Your task to perform on an android device: turn off location Image 0: 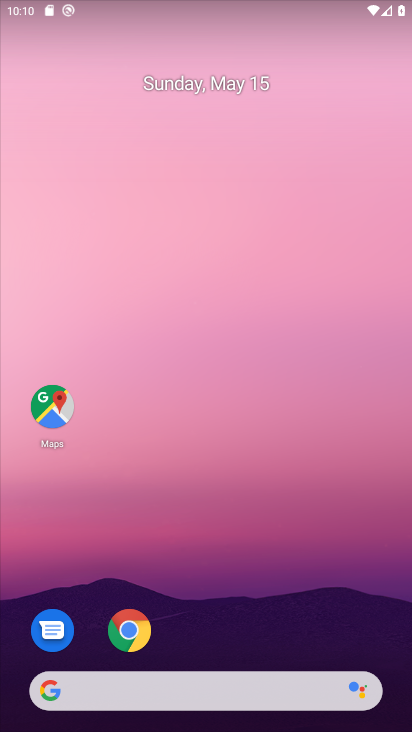
Step 0: press home button
Your task to perform on an android device: turn off location Image 1: 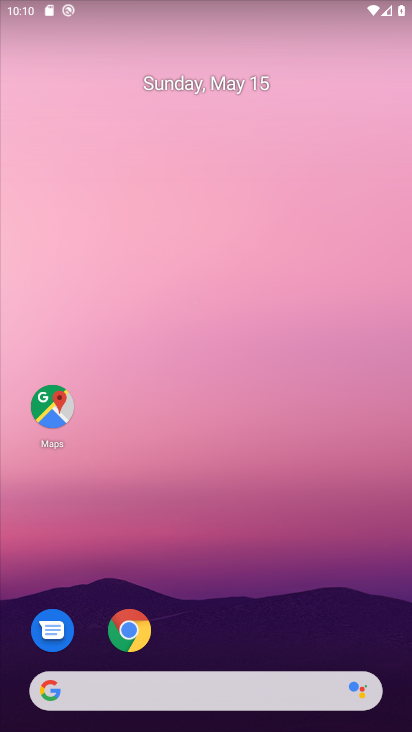
Step 1: drag from (217, 639) to (274, 9)
Your task to perform on an android device: turn off location Image 2: 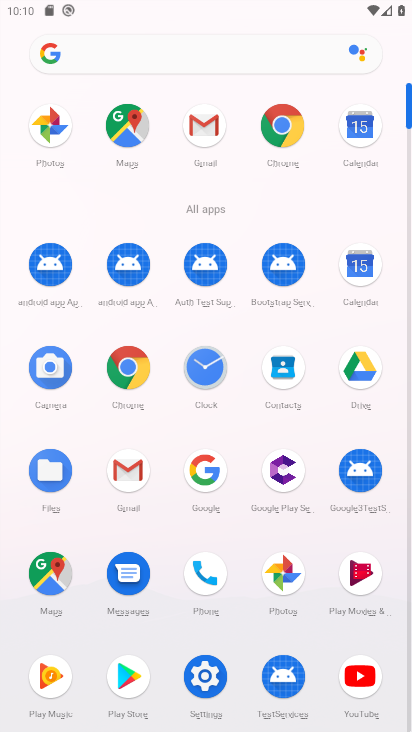
Step 2: click (203, 676)
Your task to perform on an android device: turn off location Image 3: 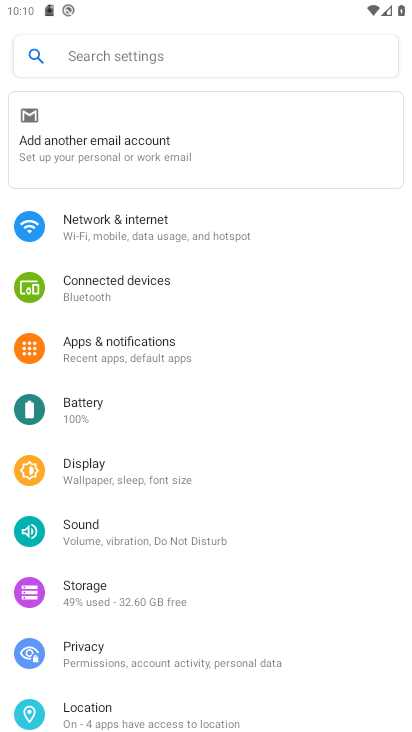
Step 3: click (115, 700)
Your task to perform on an android device: turn off location Image 4: 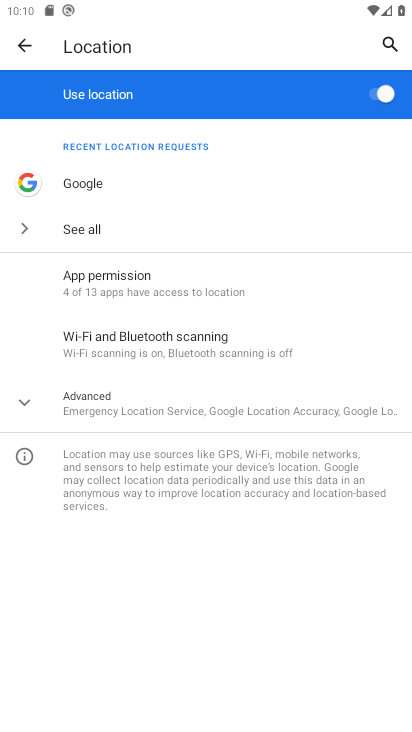
Step 4: click (371, 97)
Your task to perform on an android device: turn off location Image 5: 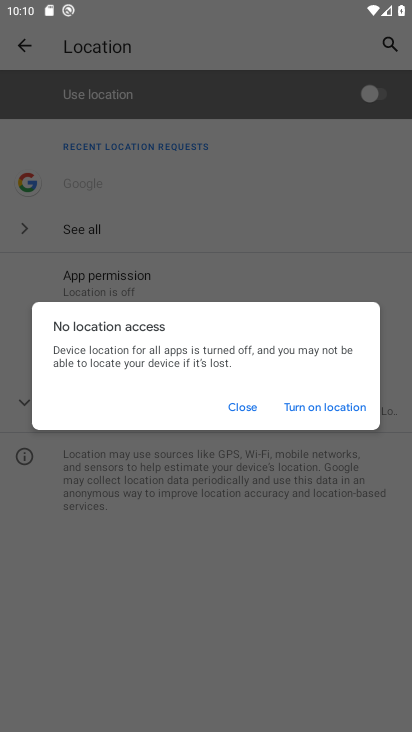
Step 5: click (242, 408)
Your task to perform on an android device: turn off location Image 6: 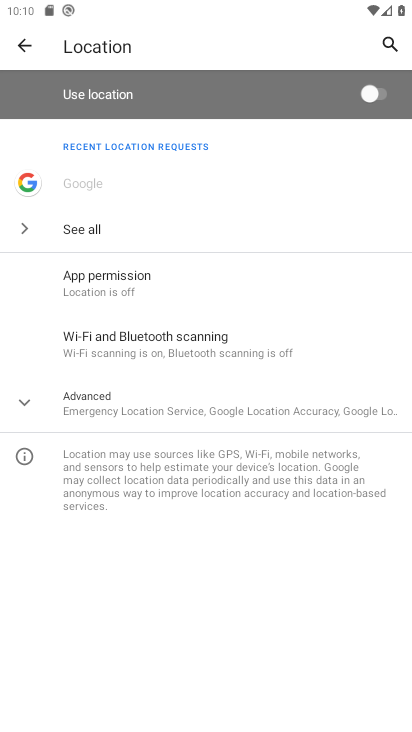
Step 6: task complete